Your task to perform on an android device: Open notification settings Image 0: 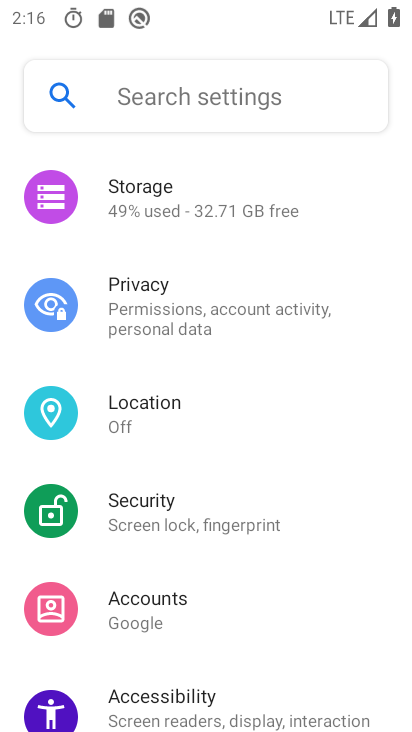
Step 0: press home button
Your task to perform on an android device: Open notification settings Image 1: 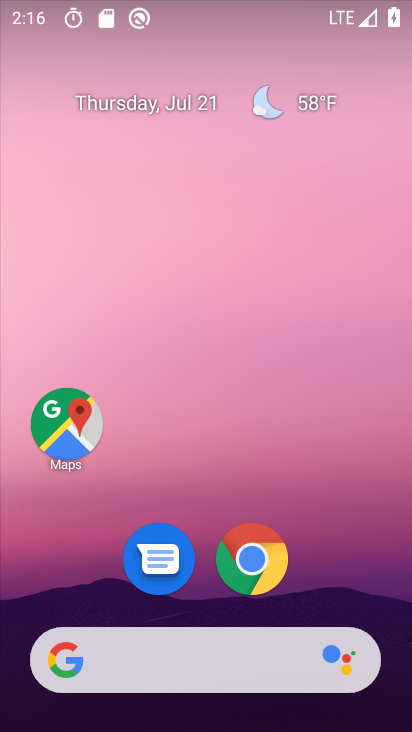
Step 1: drag from (339, 571) to (352, 112)
Your task to perform on an android device: Open notification settings Image 2: 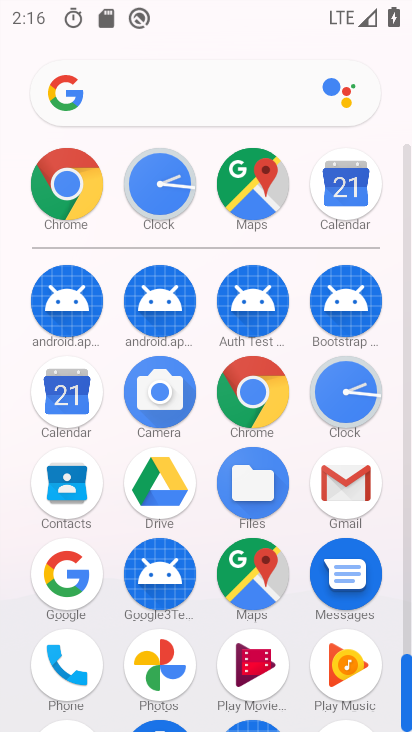
Step 2: drag from (396, 496) to (393, 313)
Your task to perform on an android device: Open notification settings Image 3: 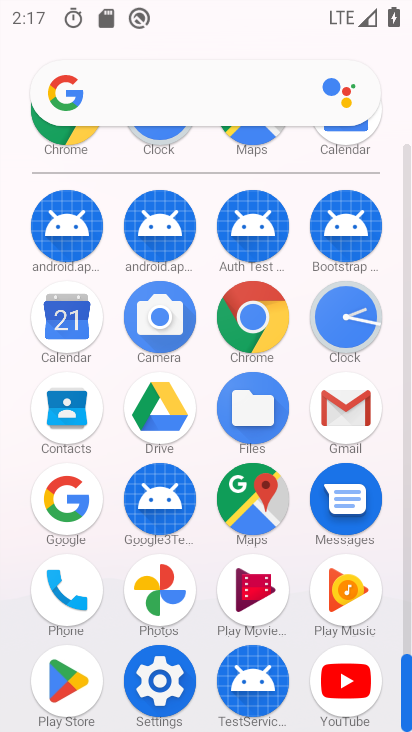
Step 3: click (153, 680)
Your task to perform on an android device: Open notification settings Image 4: 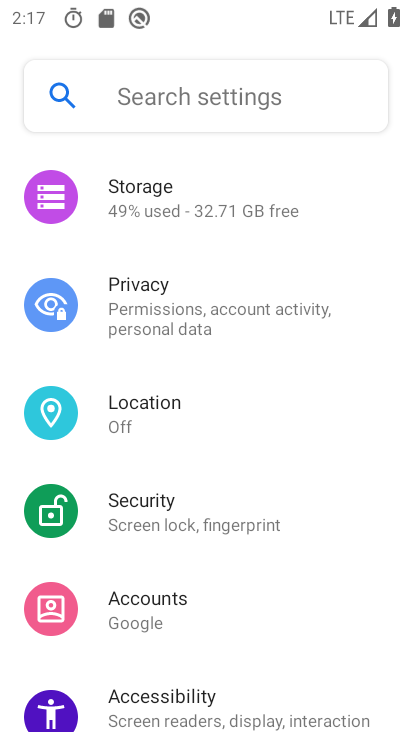
Step 4: drag from (353, 350) to (357, 442)
Your task to perform on an android device: Open notification settings Image 5: 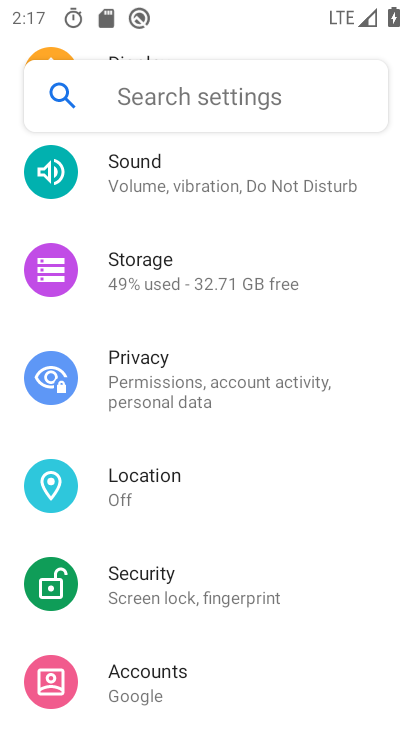
Step 5: drag from (367, 322) to (371, 424)
Your task to perform on an android device: Open notification settings Image 6: 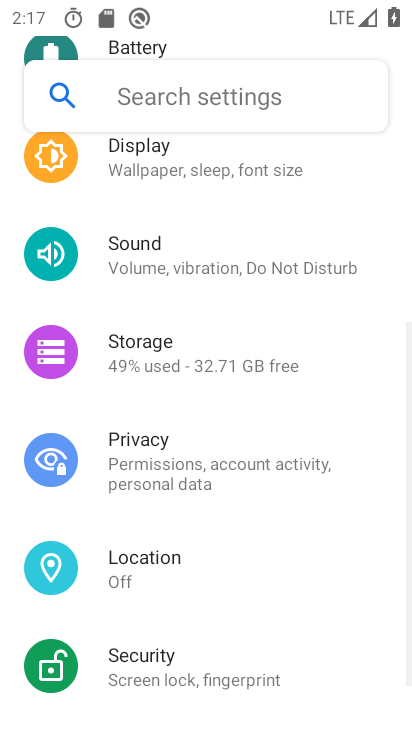
Step 6: drag from (356, 317) to (356, 428)
Your task to perform on an android device: Open notification settings Image 7: 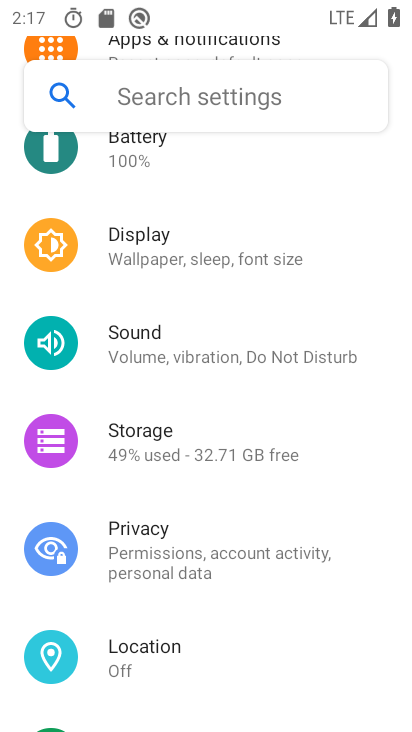
Step 7: drag from (342, 265) to (350, 422)
Your task to perform on an android device: Open notification settings Image 8: 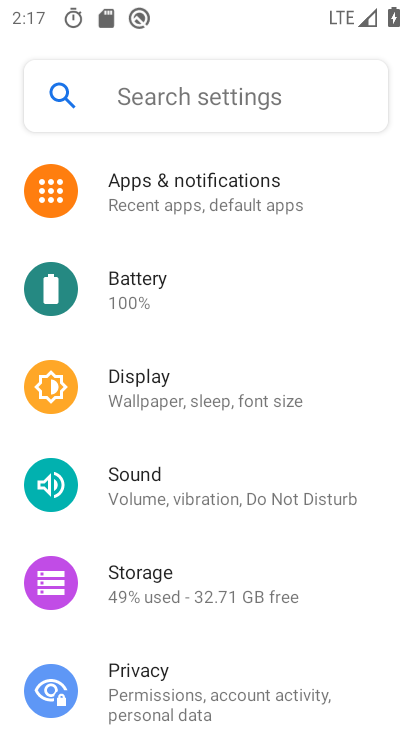
Step 8: drag from (345, 273) to (345, 417)
Your task to perform on an android device: Open notification settings Image 9: 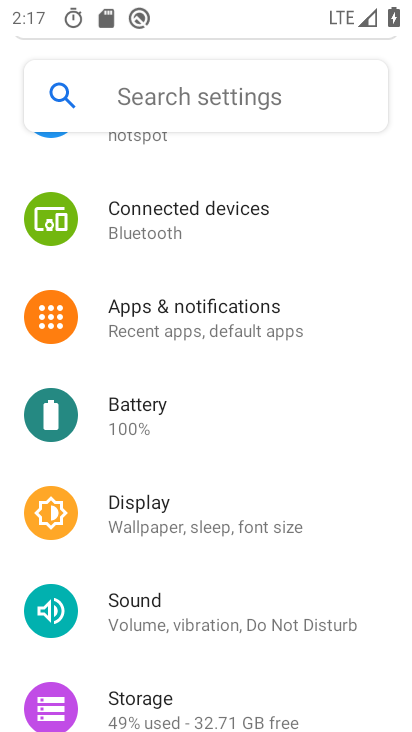
Step 9: drag from (333, 233) to (340, 414)
Your task to perform on an android device: Open notification settings Image 10: 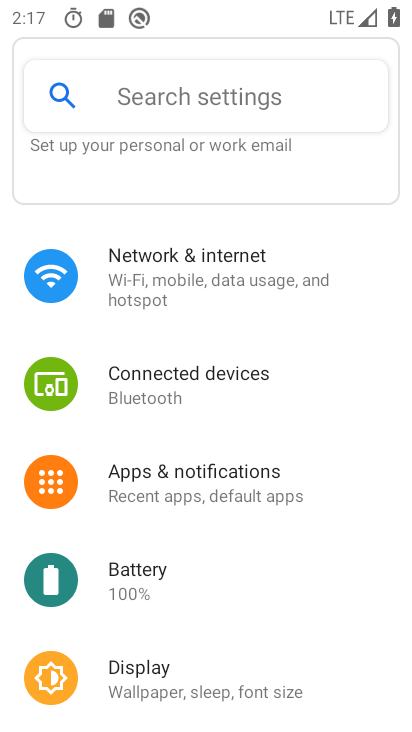
Step 10: click (207, 487)
Your task to perform on an android device: Open notification settings Image 11: 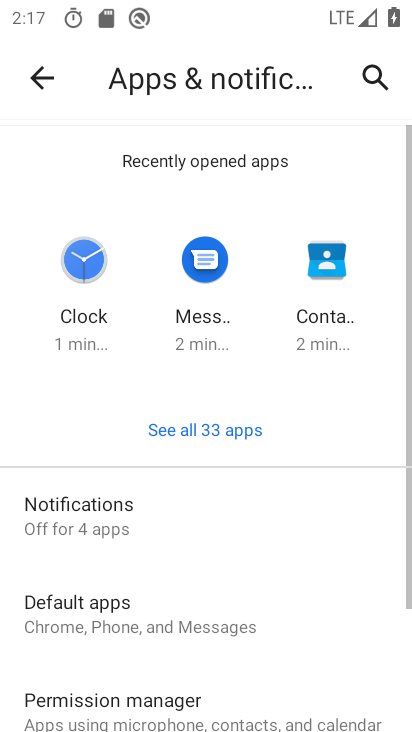
Step 11: click (147, 526)
Your task to perform on an android device: Open notification settings Image 12: 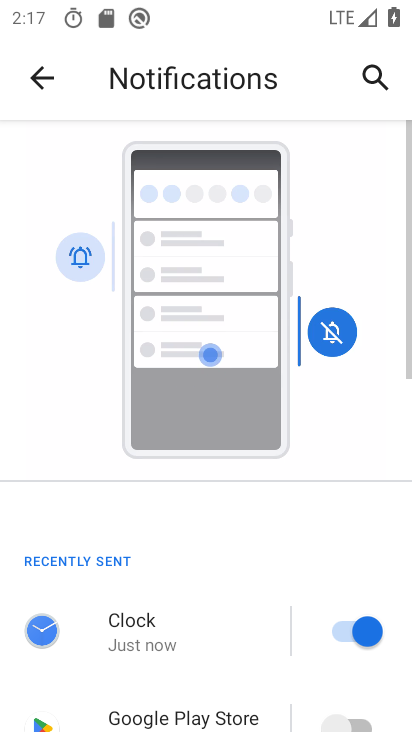
Step 12: task complete